Your task to perform on an android device: turn on showing notifications on the lock screen Image 0: 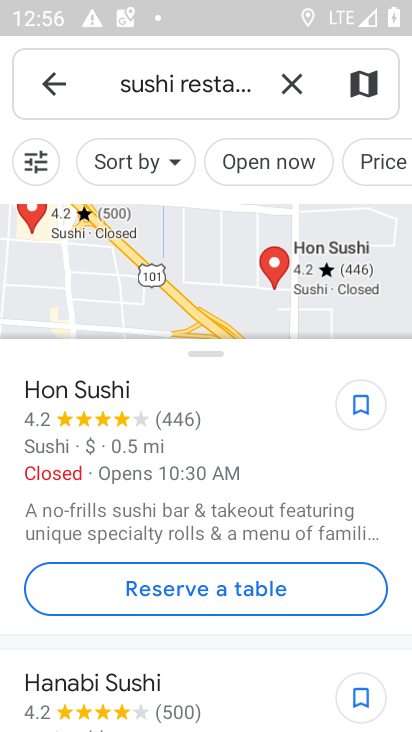
Step 0: press home button
Your task to perform on an android device: turn on showing notifications on the lock screen Image 1: 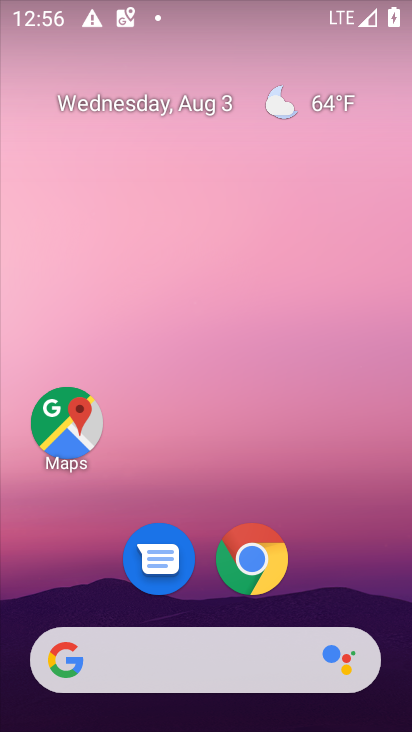
Step 1: drag from (209, 616) to (190, 5)
Your task to perform on an android device: turn on showing notifications on the lock screen Image 2: 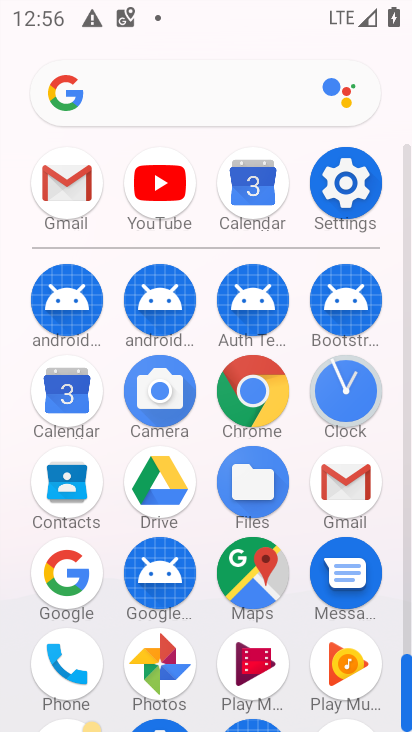
Step 2: click (346, 189)
Your task to perform on an android device: turn on showing notifications on the lock screen Image 3: 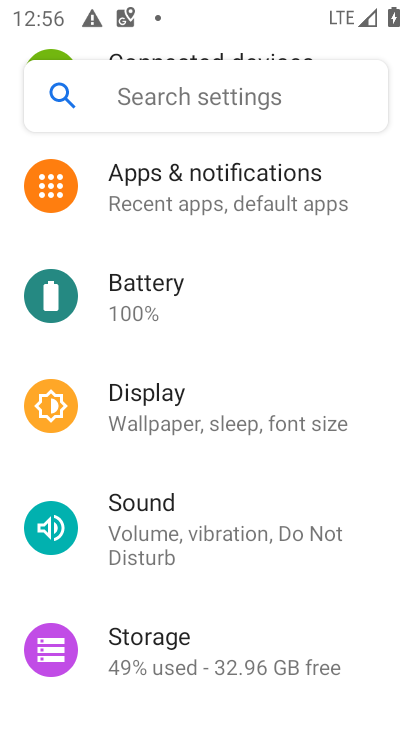
Step 3: click (244, 180)
Your task to perform on an android device: turn on showing notifications on the lock screen Image 4: 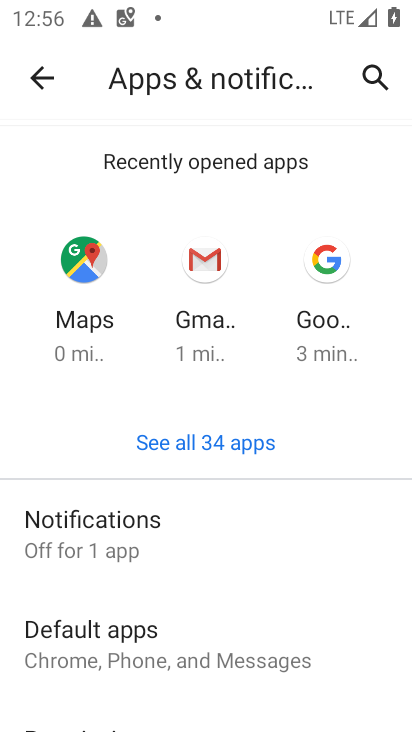
Step 4: click (82, 532)
Your task to perform on an android device: turn on showing notifications on the lock screen Image 5: 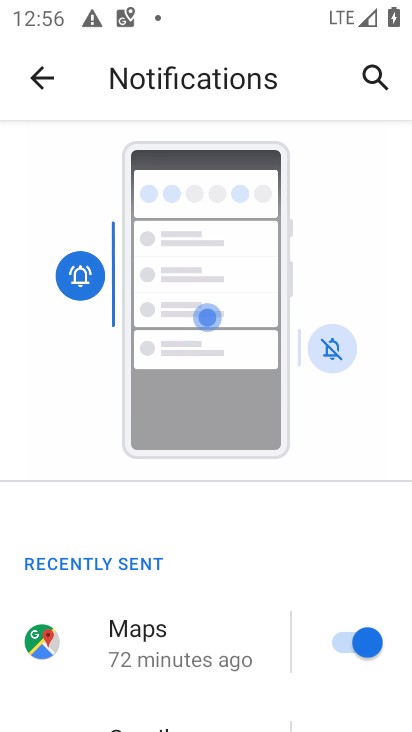
Step 5: drag from (191, 679) to (194, 155)
Your task to perform on an android device: turn on showing notifications on the lock screen Image 6: 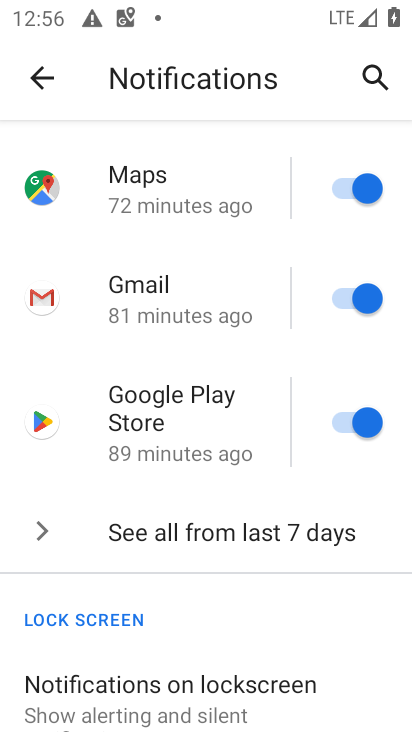
Step 6: drag from (193, 657) to (163, 241)
Your task to perform on an android device: turn on showing notifications on the lock screen Image 7: 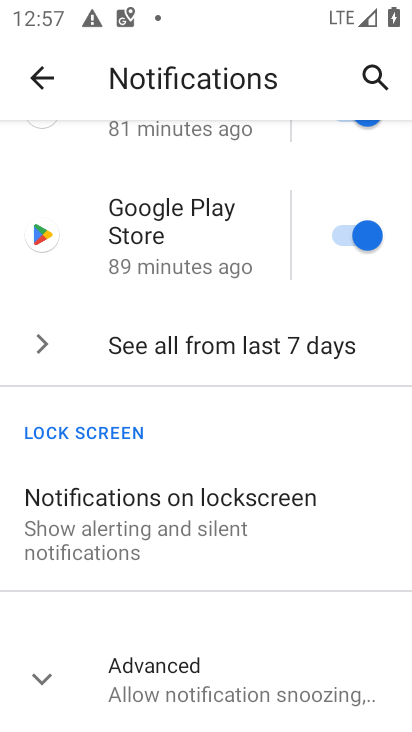
Step 7: click (120, 526)
Your task to perform on an android device: turn on showing notifications on the lock screen Image 8: 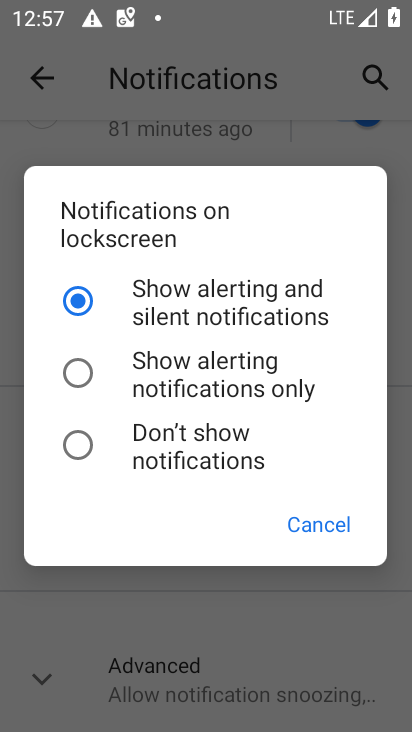
Step 8: click (79, 365)
Your task to perform on an android device: turn on showing notifications on the lock screen Image 9: 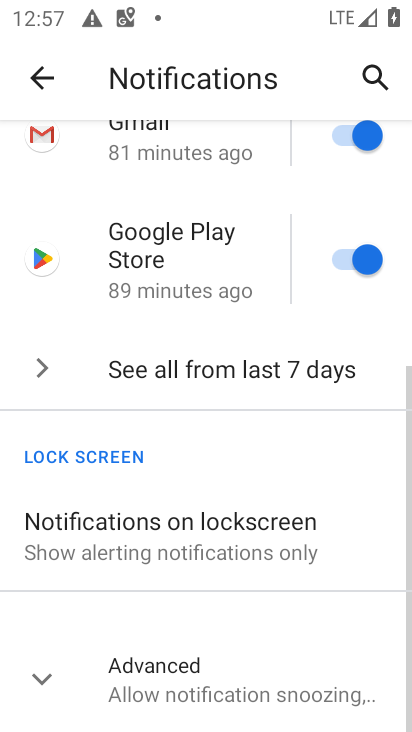
Step 9: task complete